Your task to perform on an android device: Do I have any events this weekend? Image 0: 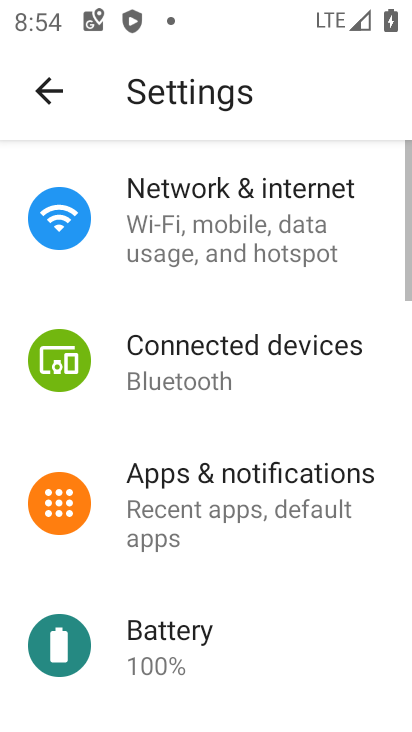
Step 0: press home button
Your task to perform on an android device: Do I have any events this weekend? Image 1: 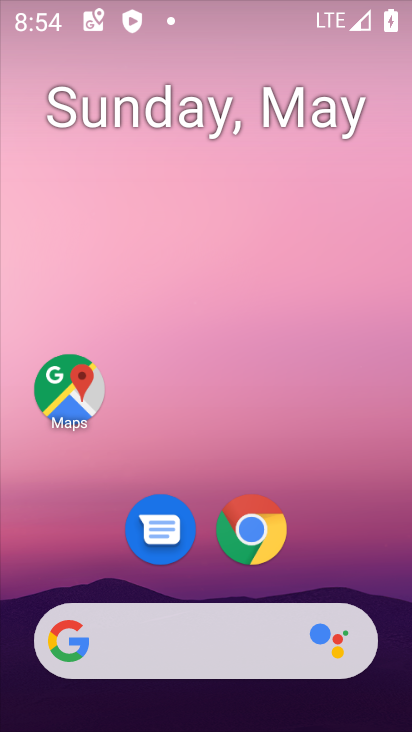
Step 1: drag from (203, 546) to (129, 67)
Your task to perform on an android device: Do I have any events this weekend? Image 2: 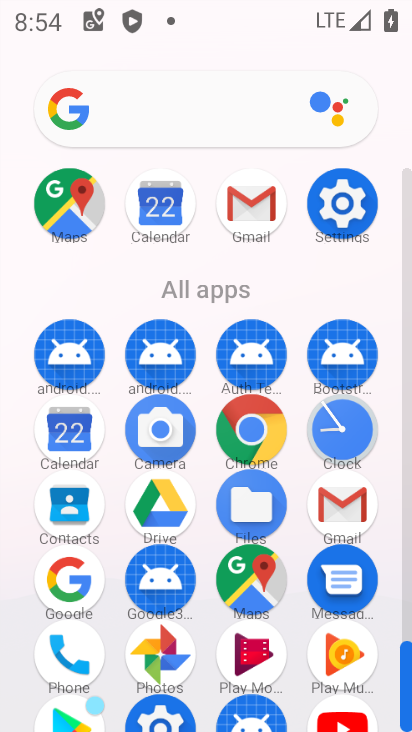
Step 2: click (147, 196)
Your task to perform on an android device: Do I have any events this weekend? Image 3: 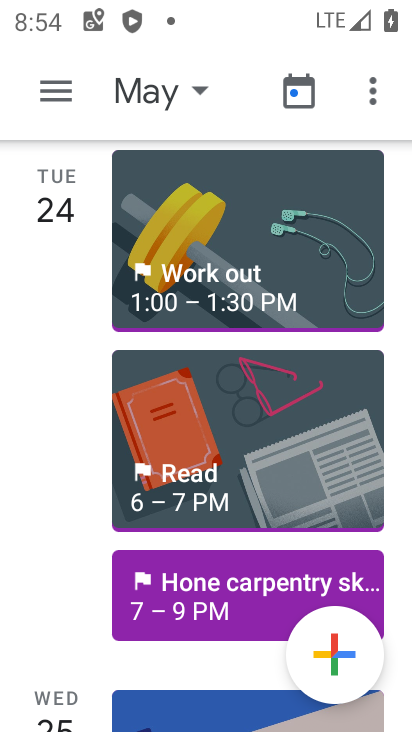
Step 3: click (180, 92)
Your task to perform on an android device: Do I have any events this weekend? Image 4: 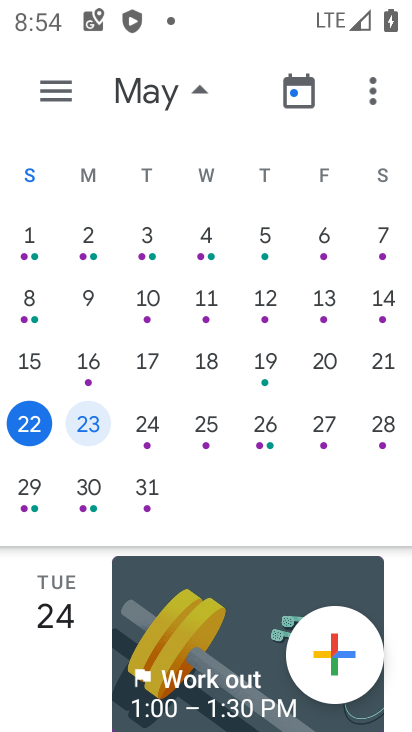
Step 4: click (374, 432)
Your task to perform on an android device: Do I have any events this weekend? Image 5: 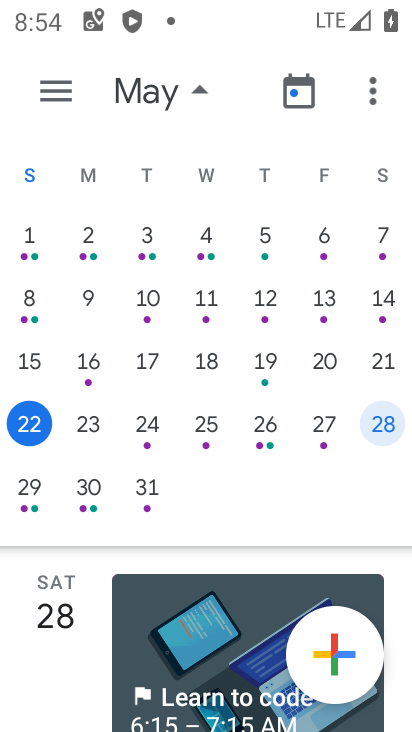
Step 5: task complete